Your task to perform on an android device: turn off sleep mode Image 0: 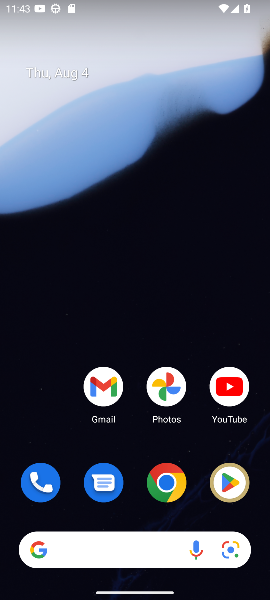
Step 0: drag from (134, 430) to (142, 103)
Your task to perform on an android device: turn off sleep mode Image 1: 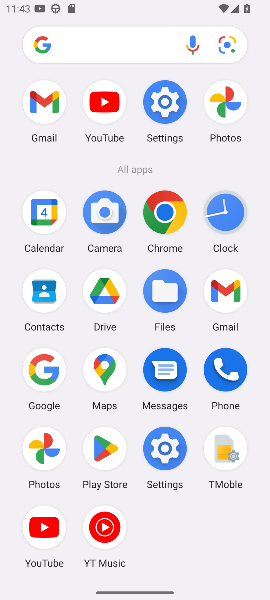
Step 1: click (167, 120)
Your task to perform on an android device: turn off sleep mode Image 2: 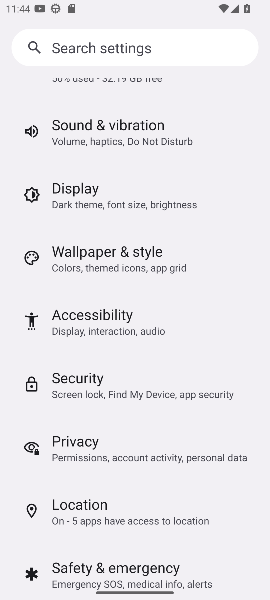
Step 2: drag from (125, 187) to (139, 392)
Your task to perform on an android device: turn off sleep mode Image 3: 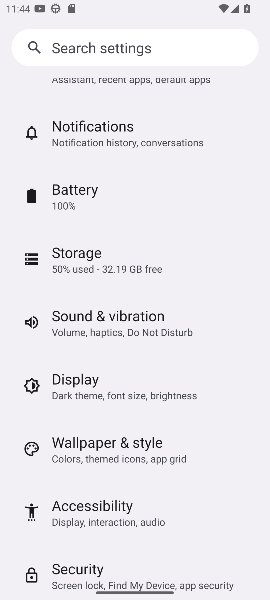
Step 3: click (130, 392)
Your task to perform on an android device: turn off sleep mode Image 4: 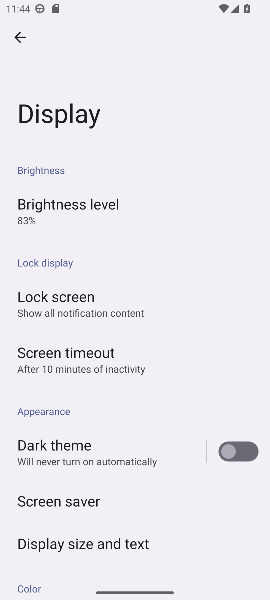
Step 4: click (115, 372)
Your task to perform on an android device: turn off sleep mode Image 5: 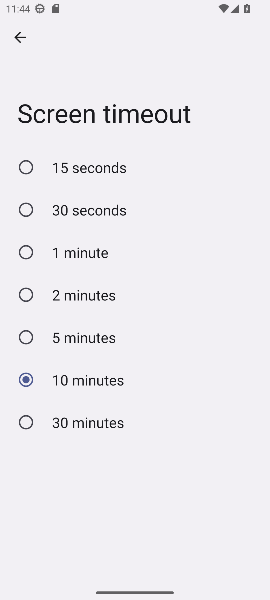
Step 5: click (68, 229)
Your task to perform on an android device: turn off sleep mode Image 6: 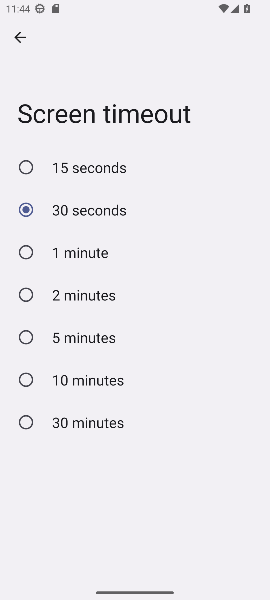
Step 6: task complete